Your task to perform on an android device: turn off smart reply in the gmail app Image 0: 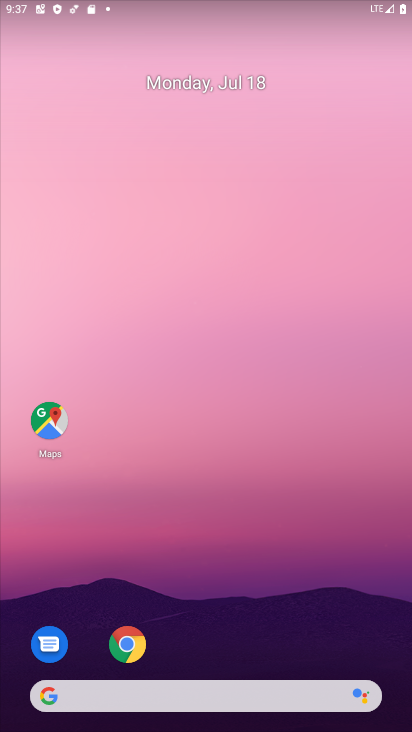
Step 0: drag from (226, 674) to (125, 15)
Your task to perform on an android device: turn off smart reply in the gmail app Image 1: 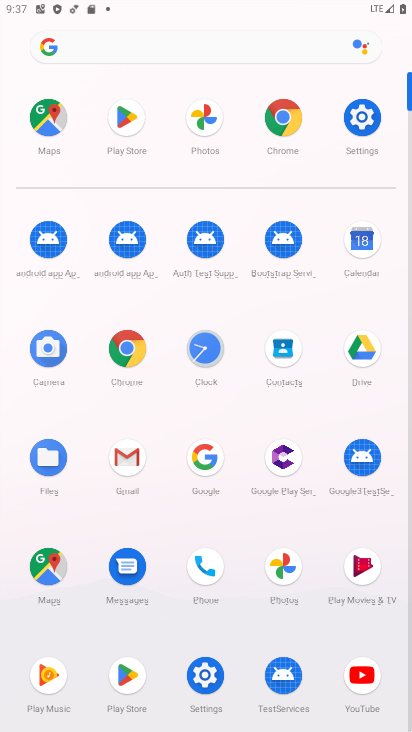
Step 1: click (115, 456)
Your task to perform on an android device: turn off smart reply in the gmail app Image 2: 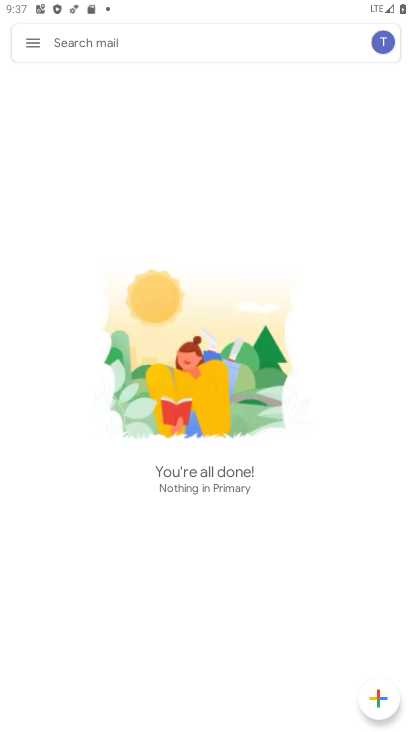
Step 2: click (23, 37)
Your task to perform on an android device: turn off smart reply in the gmail app Image 3: 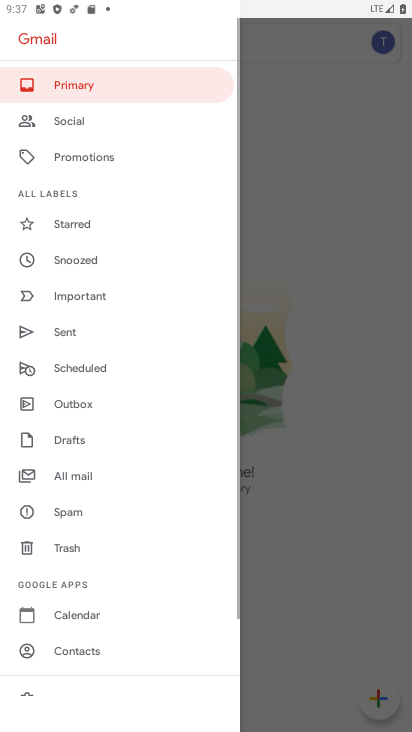
Step 3: drag from (101, 635) to (97, 62)
Your task to perform on an android device: turn off smart reply in the gmail app Image 4: 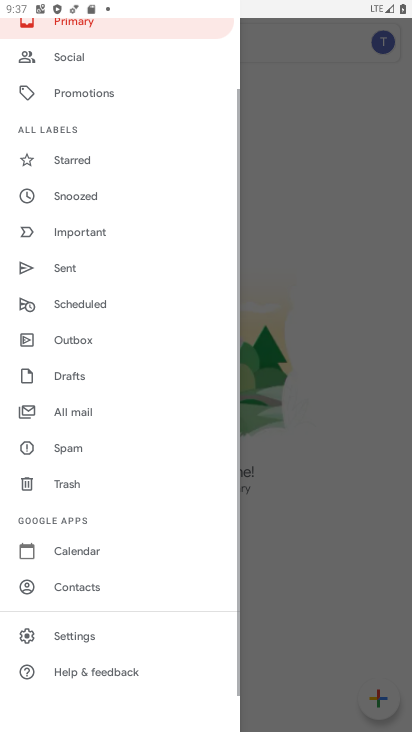
Step 4: click (73, 625)
Your task to perform on an android device: turn off smart reply in the gmail app Image 5: 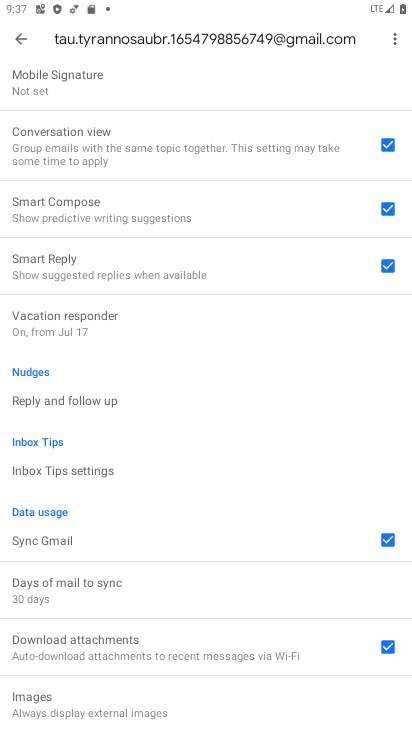
Step 5: click (76, 256)
Your task to perform on an android device: turn off smart reply in the gmail app Image 6: 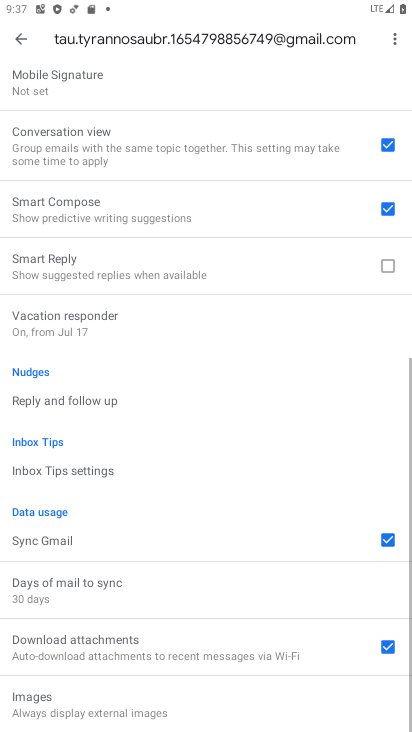
Step 6: task complete